Your task to perform on an android device: Go to wifi settings Image 0: 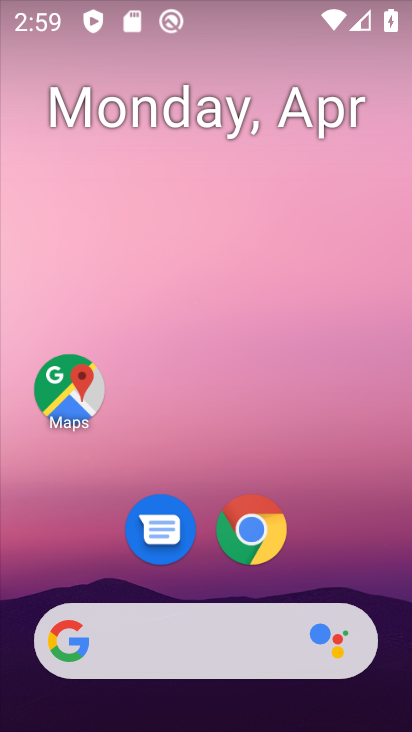
Step 0: drag from (311, 682) to (263, 67)
Your task to perform on an android device: Go to wifi settings Image 1: 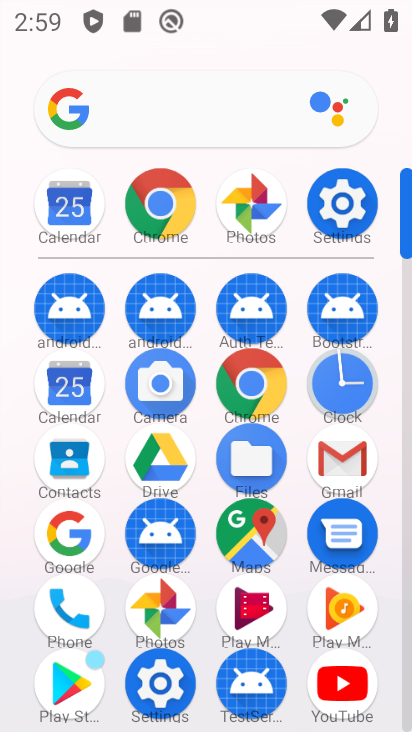
Step 1: click (323, 204)
Your task to perform on an android device: Go to wifi settings Image 2: 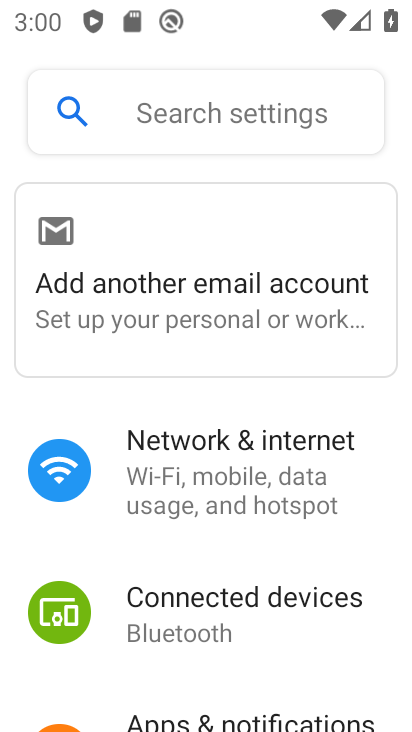
Step 2: click (182, 497)
Your task to perform on an android device: Go to wifi settings Image 3: 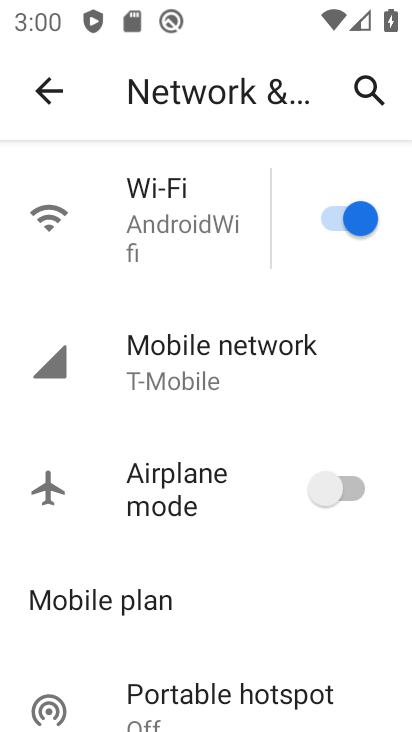
Step 3: click (211, 228)
Your task to perform on an android device: Go to wifi settings Image 4: 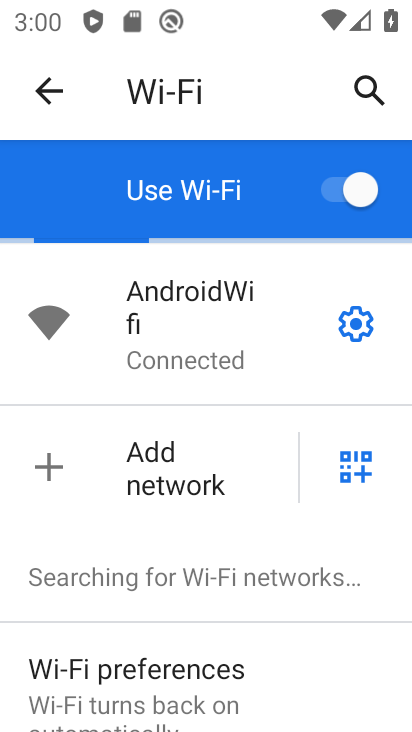
Step 4: task complete